Your task to perform on an android device: change the clock display to analog Image 0: 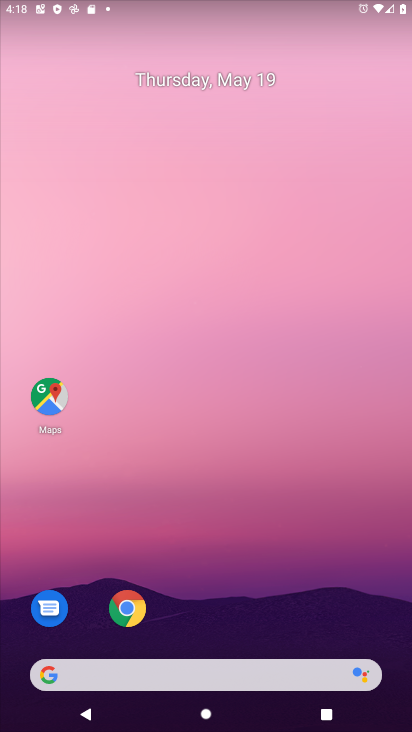
Step 0: drag from (281, 617) to (300, 129)
Your task to perform on an android device: change the clock display to analog Image 1: 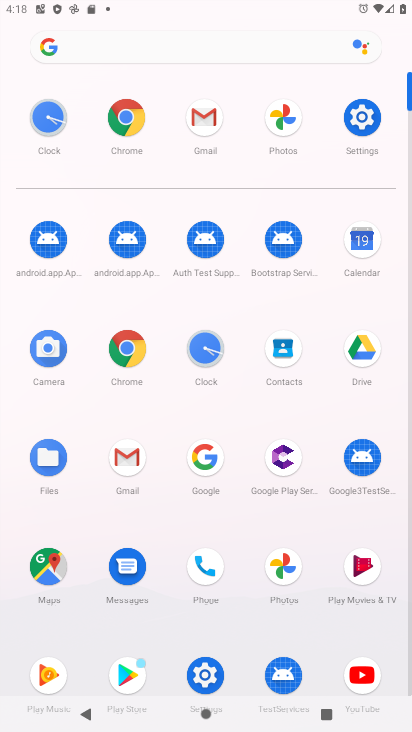
Step 1: click (48, 153)
Your task to perform on an android device: change the clock display to analog Image 2: 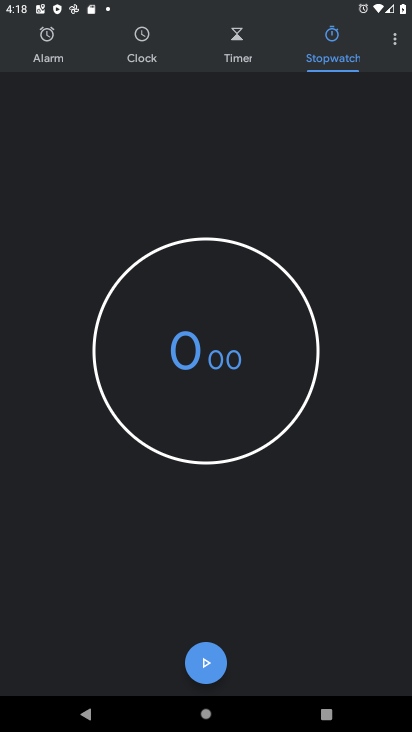
Step 2: click (389, 46)
Your task to perform on an android device: change the clock display to analog Image 3: 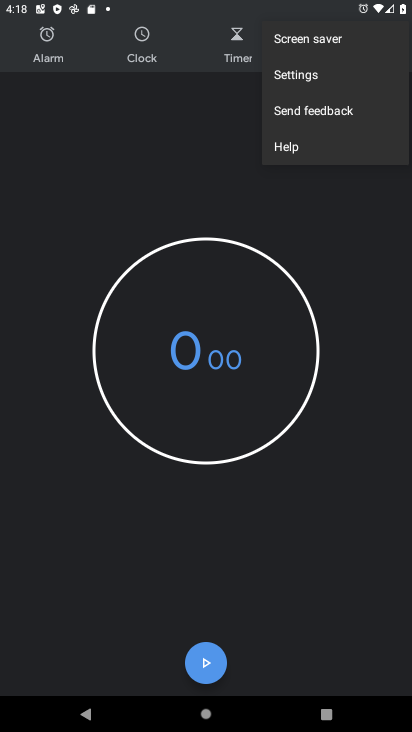
Step 3: click (302, 98)
Your task to perform on an android device: change the clock display to analog Image 4: 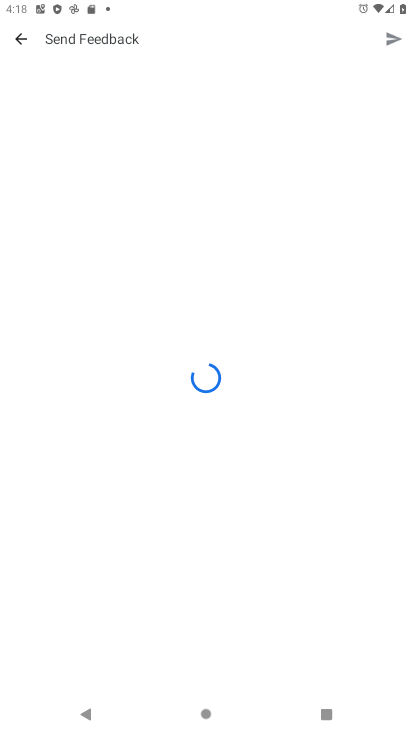
Step 4: click (19, 37)
Your task to perform on an android device: change the clock display to analog Image 5: 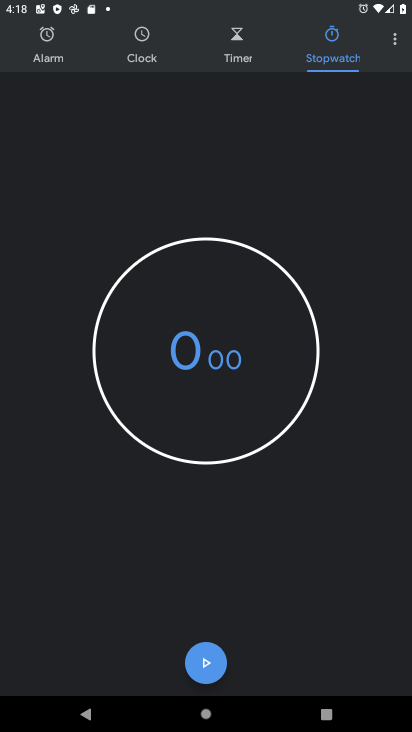
Step 5: click (396, 34)
Your task to perform on an android device: change the clock display to analog Image 6: 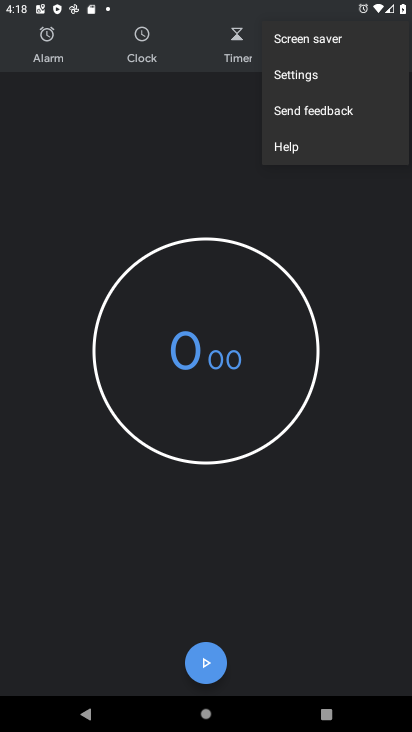
Step 6: click (349, 78)
Your task to perform on an android device: change the clock display to analog Image 7: 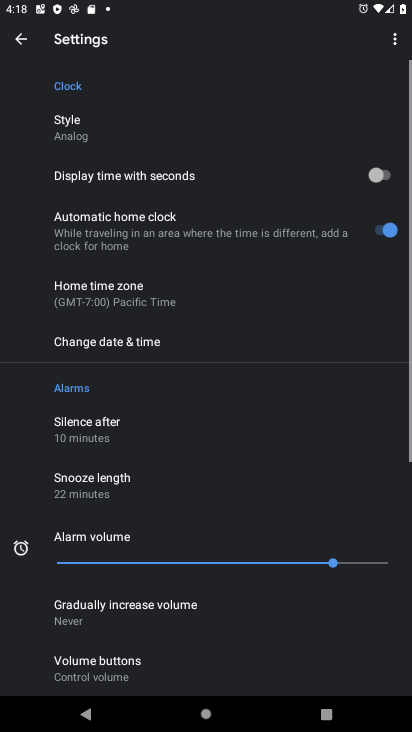
Step 7: click (92, 139)
Your task to perform on an android device: change the clock display to analog Image 8: 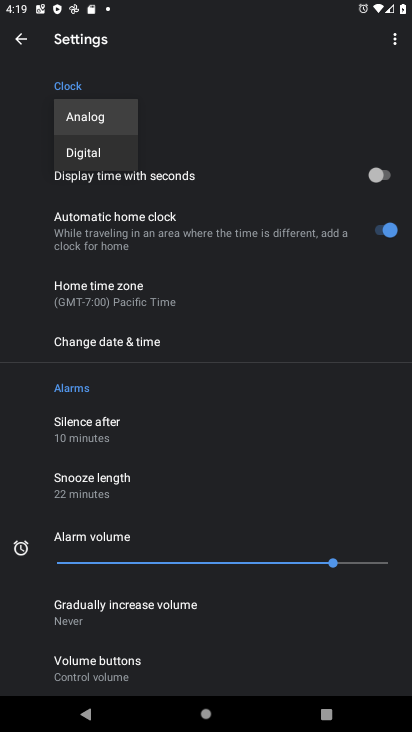
Step 8: task complete